Your task to perform on an android device: Open Wikipedia Image 0: 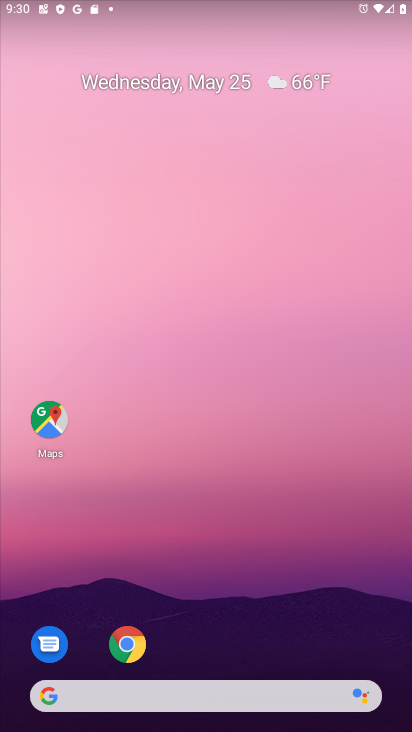
Step 0: press home button
Your task to perform on an android device: Open Wikipedia Image 1: 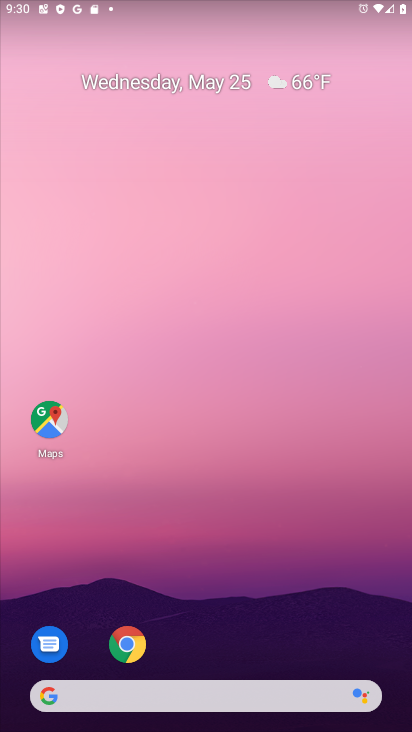
Step 1: click (123, 637)
Your task to perform on an android device: Open Wikipedia Image 2: 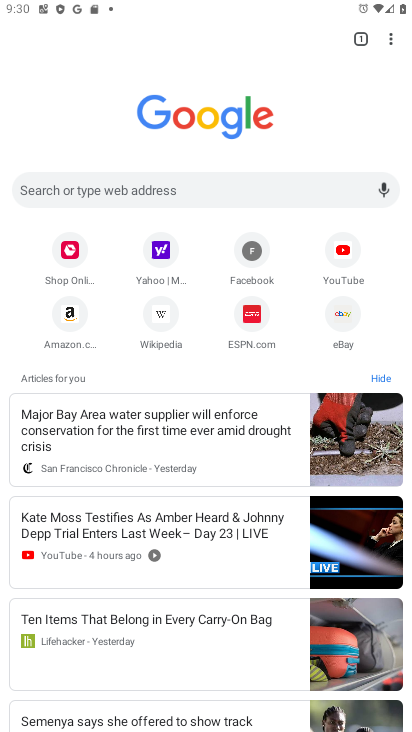
Step 2: click (157, 309)
Your task to perform on an android device: Open Wikipedia Image 3: 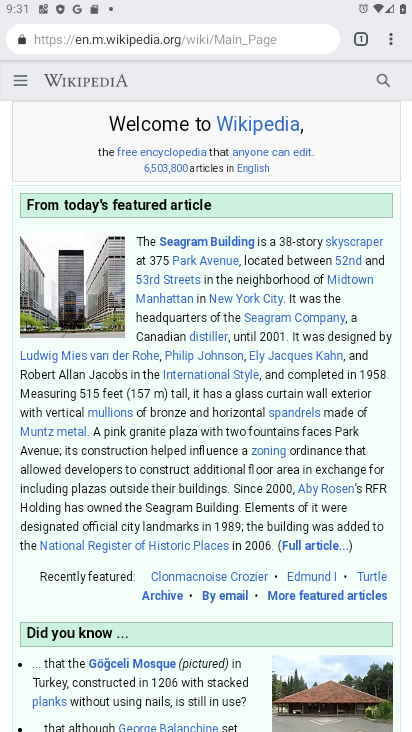
Step 3: task complete